Your task to perform on an android device: Open the Play Movies app and select the watchlist tab. Image 0: 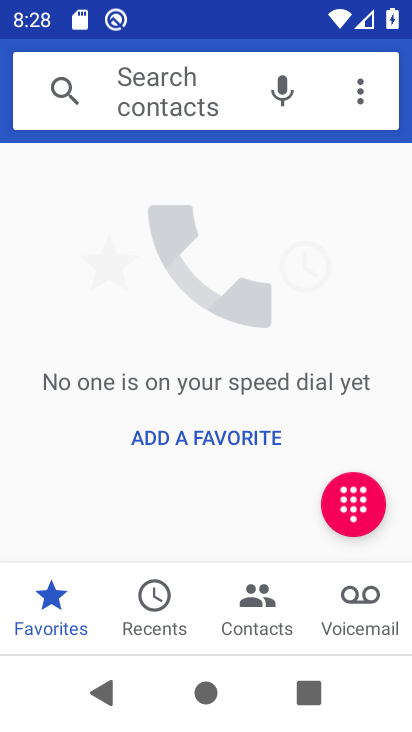
Step 0: press home button
Your task to perform on an android device: Open the Play Movies app and select the watchlist tab. Image 1: 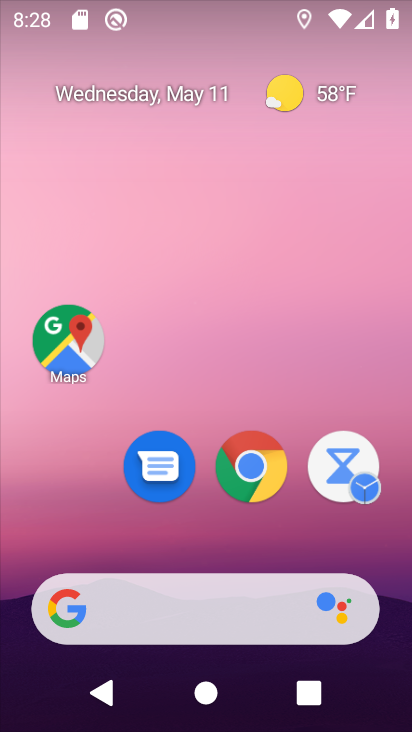
Step 1: drag from (216, 543) to (229, 78)
Your task to perform on an android device: Open the Play Movies app and select the watchlist tab. Image 2: 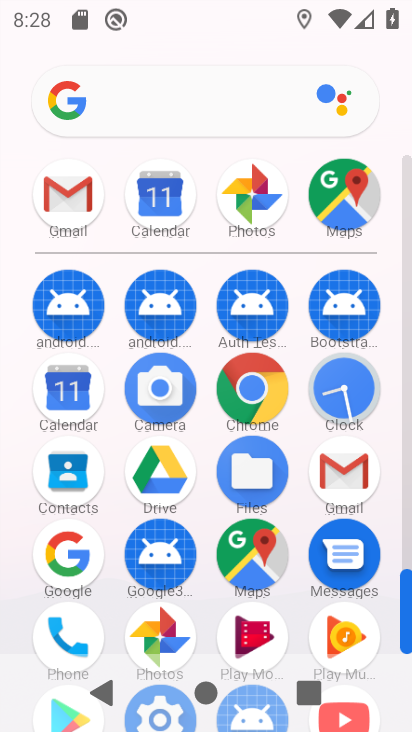
Step 2: click (247, 635)
Your task to perform on an android device: Open the Play Movies app and select the watchlist tab. Image 3: 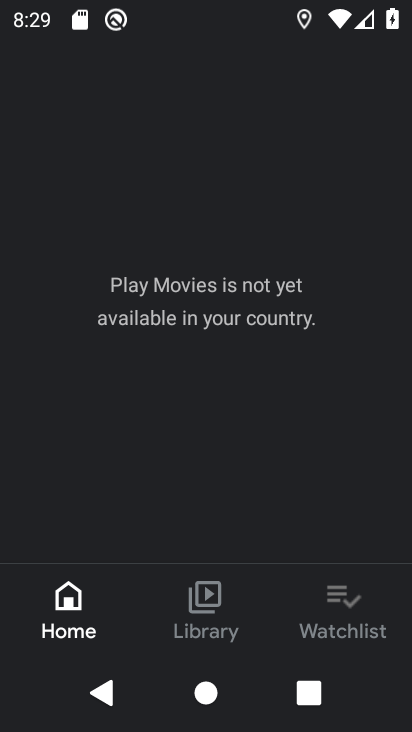
Step 3: click (342, 613)
Your task to perform on an android device: Open the Play Movies app and select the watchlist tab. Image 4: 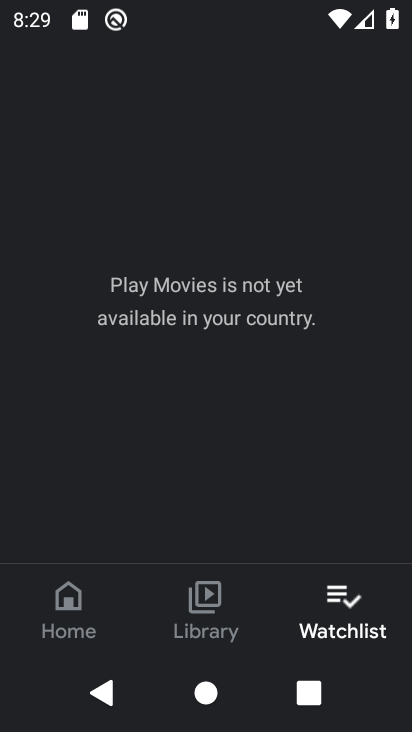
Step 4: task complete